Your task to perform on an android device: Show me popular videos on Youtube Image 0: 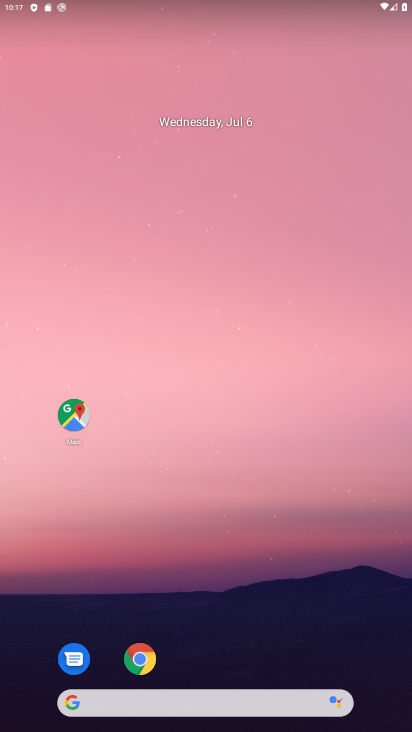
Step 0: drag from (203, 575) to (254, 1)
Your task to perform on an android device: Show me popular videos on Youtube Image 1: 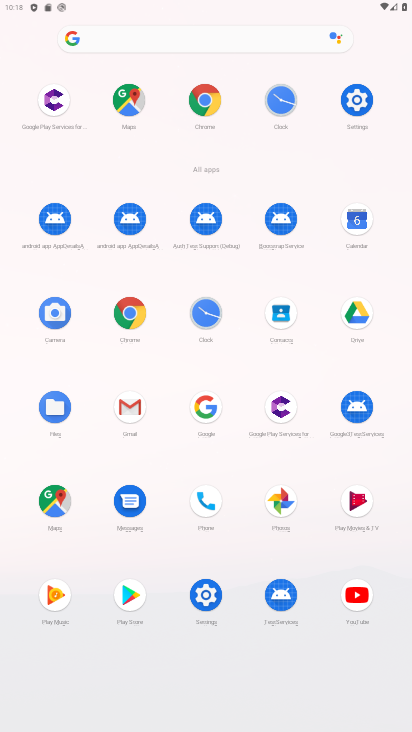
Step 1: click (357, 600)
Your task to perform on an android device: Show me popular videos on Youtube Image 2: 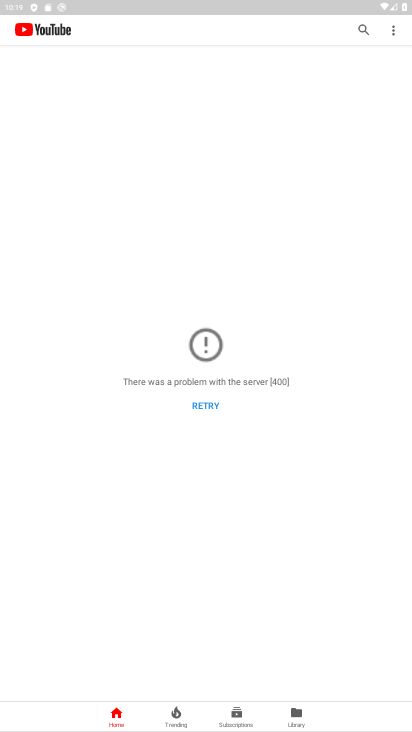
Step 2: task complete